Your task to perform on an android device: Open internet settings Image 0: 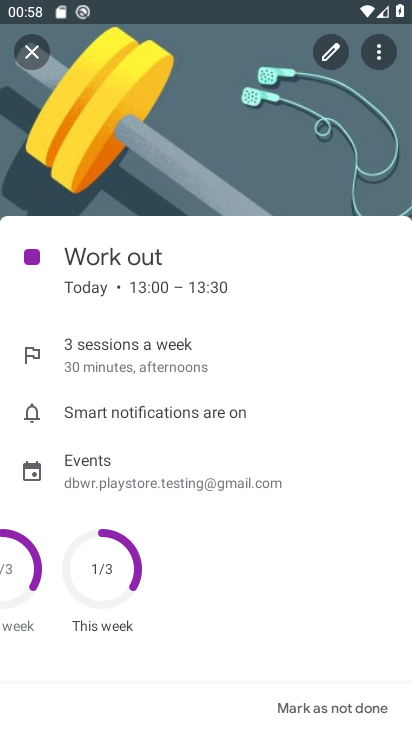
Step 0: press home button
Your task to perform on an android device: Open internet settings Image 1: 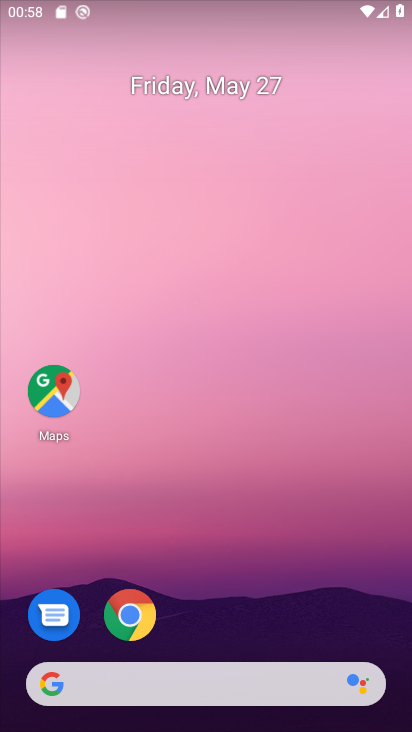
Step 1: drag from (362, 635) to (355, 275)
Your task to perform on an android device: Open internet settings Image 2: 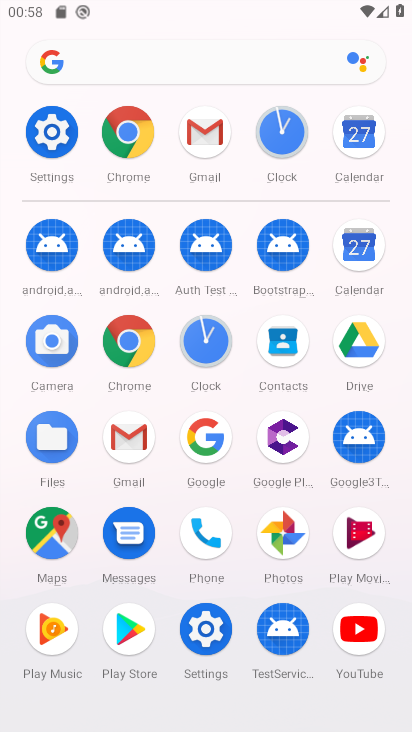
Step 2: click (205, 645)
Your task to perform on an android device: Open internet settings Image 3: 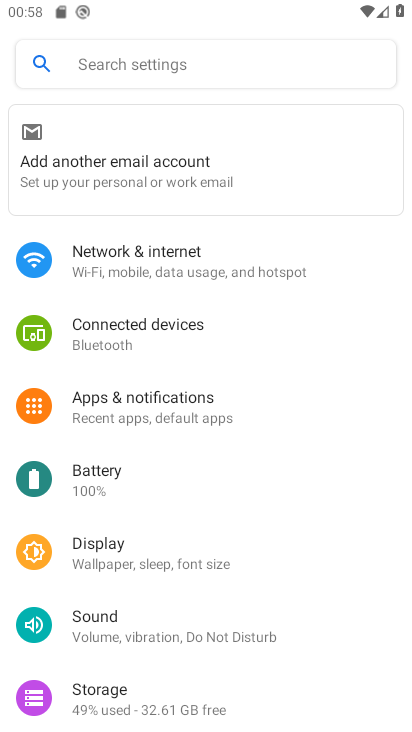
Step 3: drag from (323, 603) to (332, 517)
Your task to perform on an android device: Open internet settings Image 4: 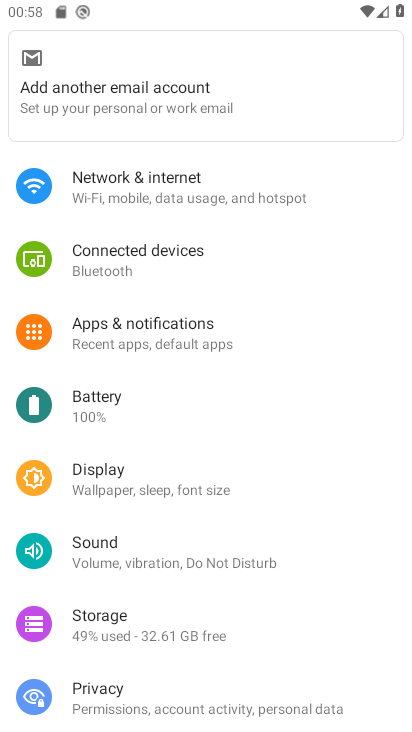
Step 4: drag from (343, 624) to (343, 548)
Your task to perform on an android device: Open internet settings Image 5: 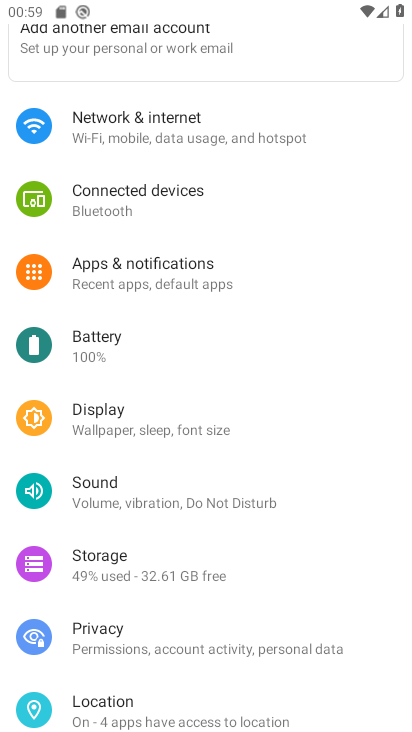
Step 5: click (357, 585)
Your task to perform on an android device: Open internet settings Image 6: 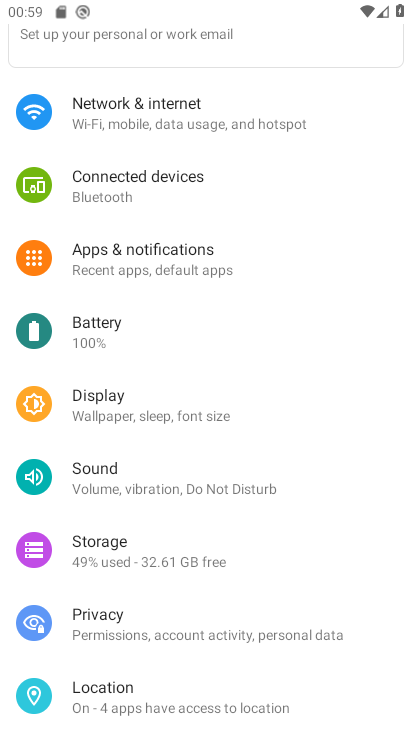
Step 6: drag from (364, 597) to (379, 524)
Your task to perform on an android device: Open internet settings Image 7: 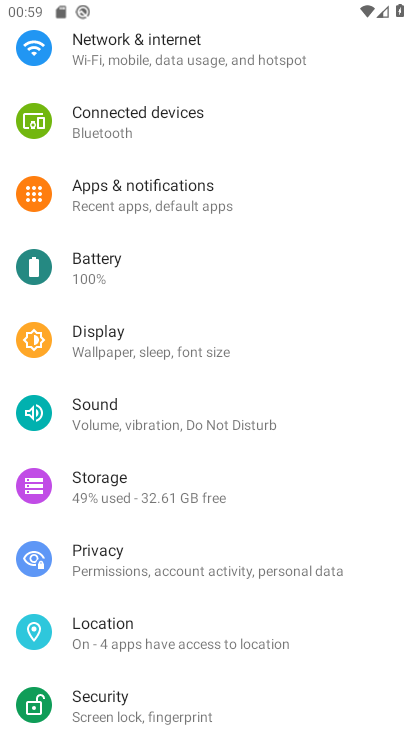
Step 7: drag from (367, 610) to (376, 544)
Your task to perform on an android device: Open internet settings Image 8: 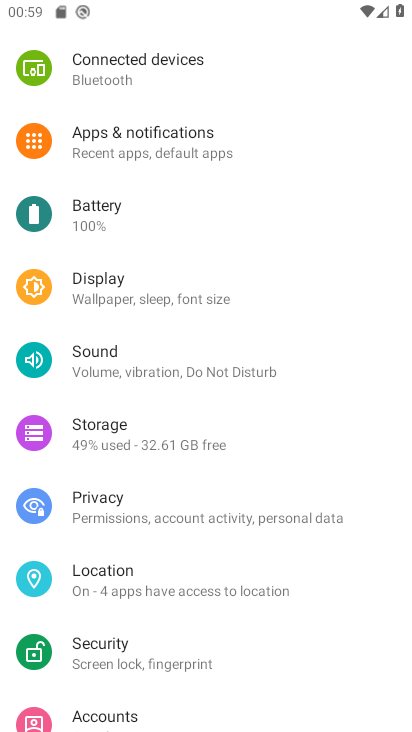
Step 8: drag from (374, 617) to (376, 545)
Your task to perform on an android device: Open internet settings Image 9: 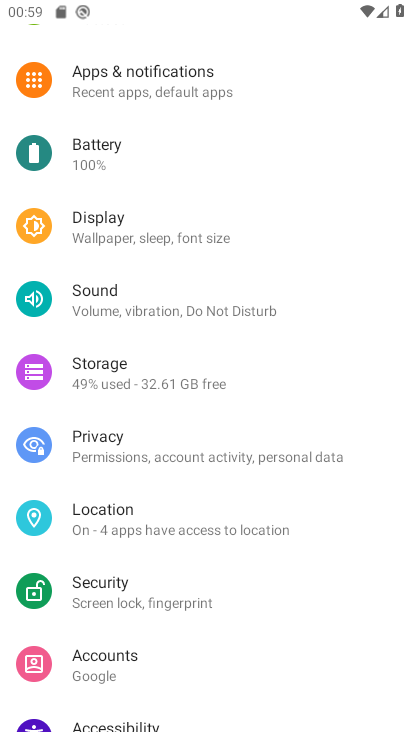
Step 9: drag from (382, 360) to (374, 442)
Your task to perform on an android device: Open internet settings Image 10: 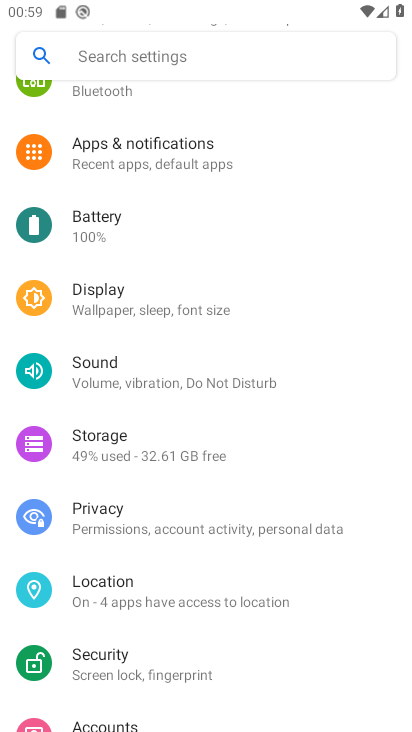
Step 10: drag from (348, 302) to (348, 391)
Your task to perform on an android device: Open internet settings Image 11: 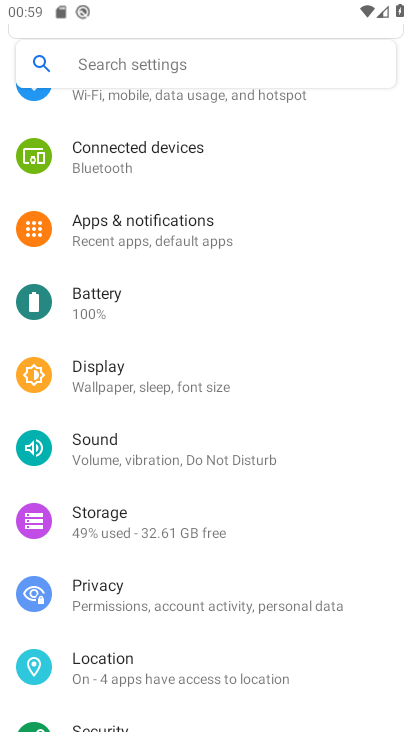
Step 11: drag from (331, 308) to (346, 370)
Your task to perform on an android device: Open internet settings Image 12: 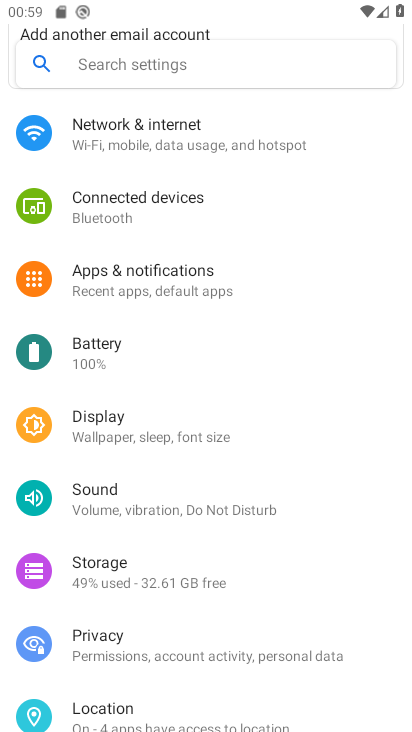
Step 12: drag from (357, 274) to (358, 372)
Your task to perform on an android device: Open internet settings Image 13: 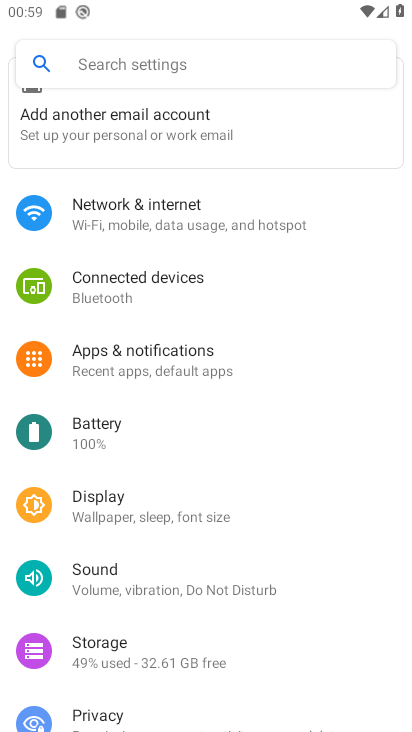
Step 13: click (358, 318)
Your task to perform on an android device: Open internet settings Image 14: 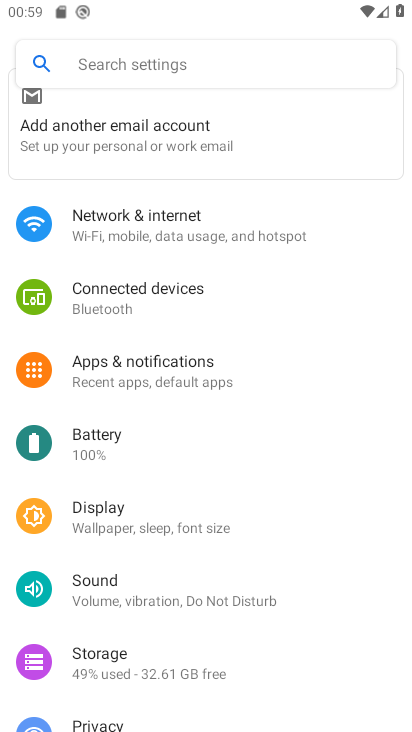
Step 14: click (254, 232)
Your task to perform on an android device: Open internet settings Image 15: 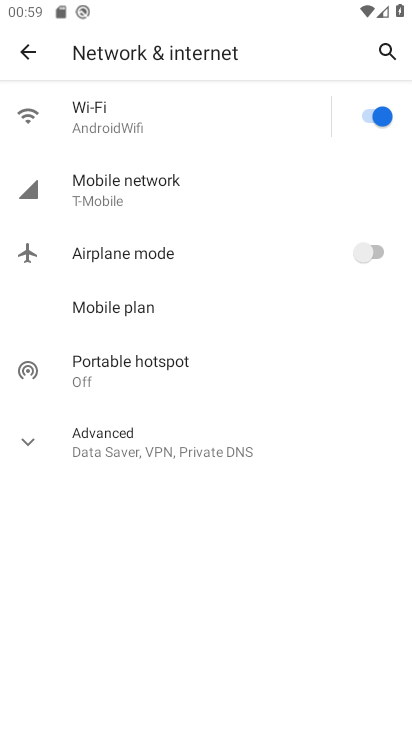
Step 15: task complete